Your task to perform on an android device: find photos in the google photos app Image 0: 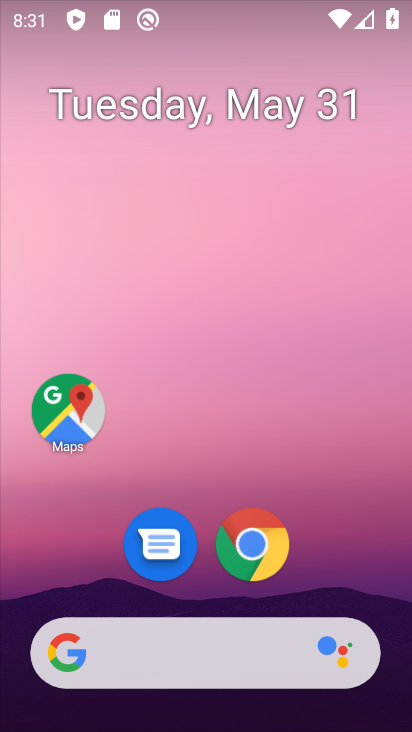
Step 0: drag from (191, 599) to (199, 206)
Your task to perform on an android device: find photos in the google photos app Image 1: 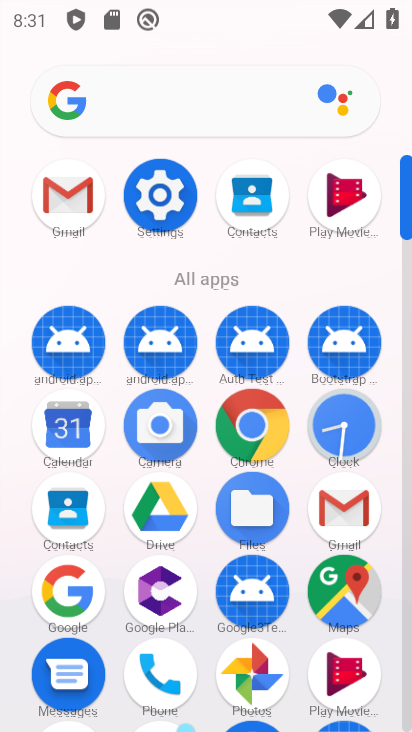
Step 1: click (203, 206)
Your task to perform on an android device: find photos in the google photos app Image 2: 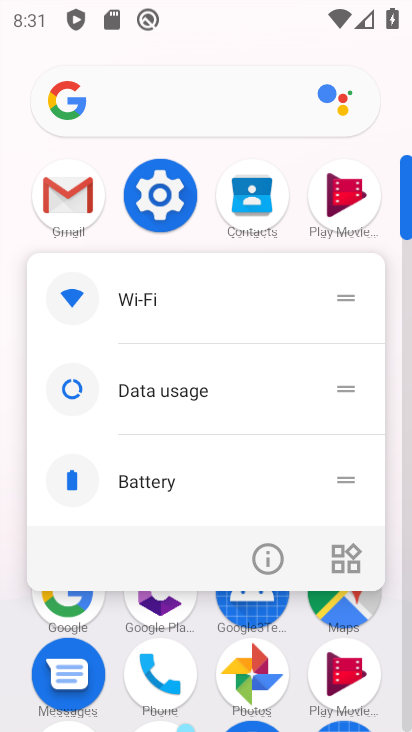
Step 2: click (258, 675)
Your task to perform on an android device: find photos in the google photos app Image 3: 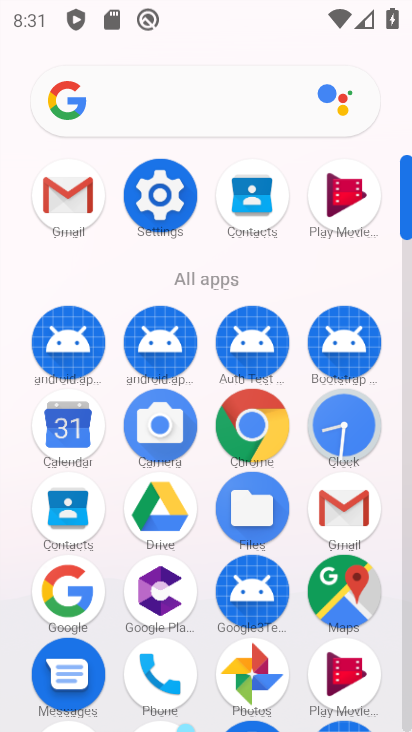
Step 3: click (267, 667)
Your task to perform on an android device: find photos in the google photos app Image 4: 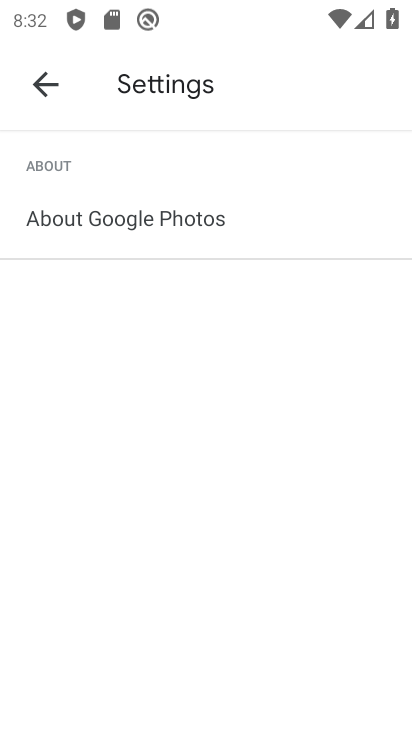
Step 4: click (41, 91)
Your task to perform on an android device: find photos in the google photos app Image 5: 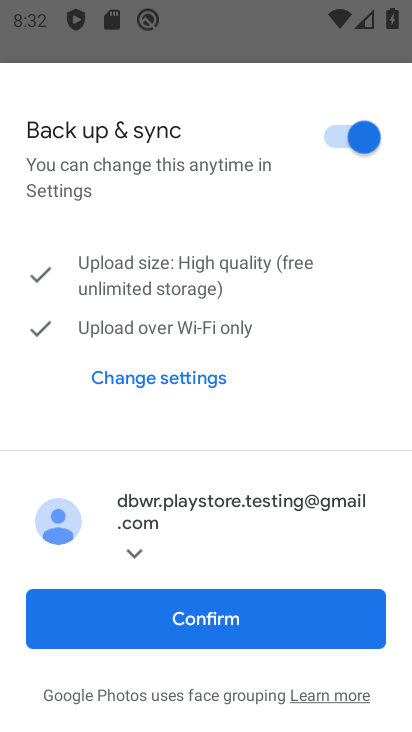
Step 5: click (191, 623)
Your task to perform on an android device: find photos in the google photos app Image 6: 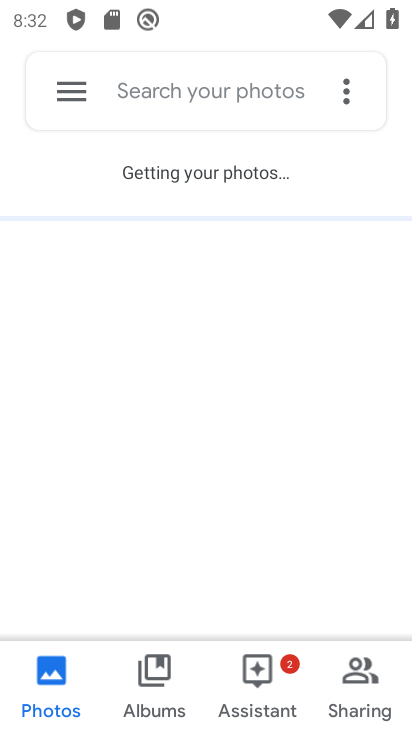
Step 6: task complete